Your task to perform on an android device: clear history in the chrome app Image 0: 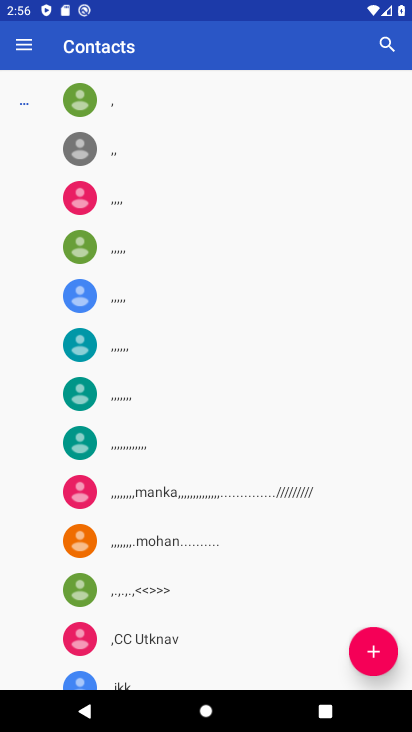
Step 0: press home button
Your task to perform on an android device: clear history in the chrome app Image 1: 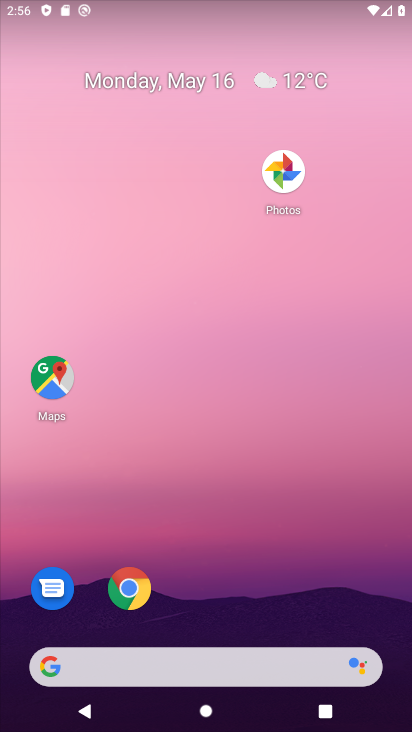
Step 1: click (131, 591)
Your task to perform on an android device: clear history in the chrome app Image 2: 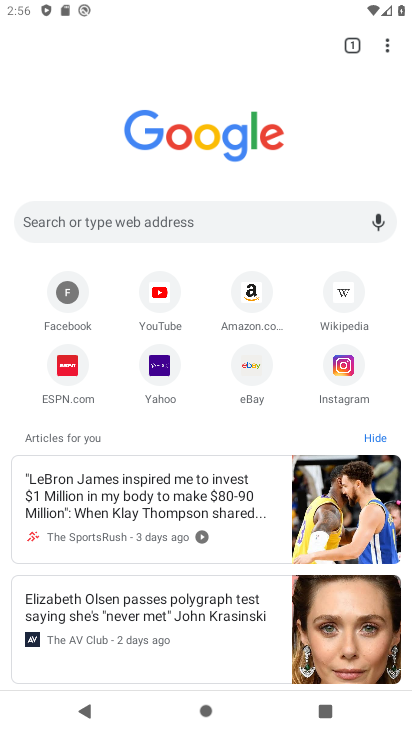
Step 2: click (397, 47)
Your task to perform on an android device: clear history in the chrome app Image 3: 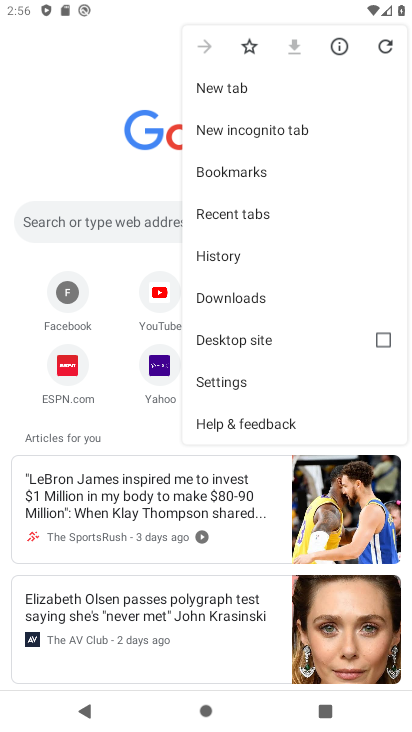
Step 3: click (237, 274)
Your task to perform on an android device: clear history in the chrome app Image 4: 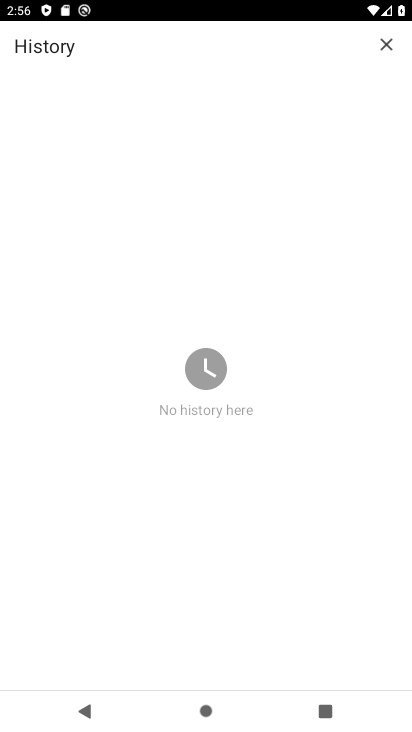
Step 4: task complete